Your task to perform on an android device: turn on showing notifications on the lock screen Image 0: 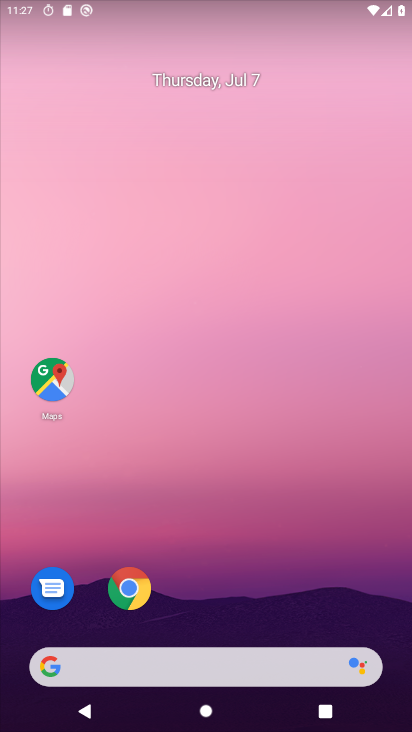
Step 0: drag from (183, 662) to (306, 162)
Your task to perform on an android device: turn on showing notifications on the lock screen Image 1: 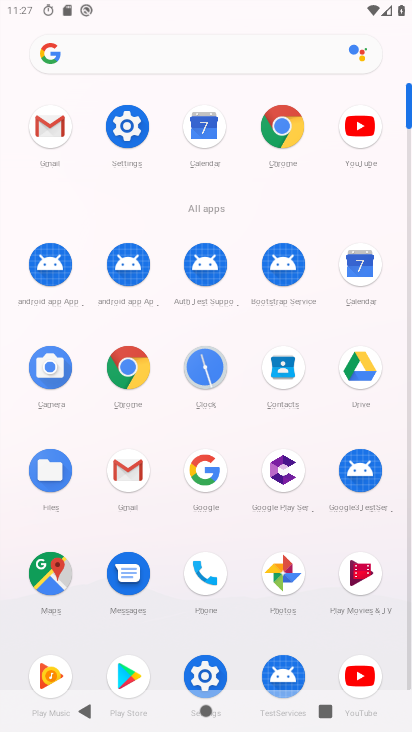
Step 1: click (127, 128)
Your task to perform on an android device: turn on showing notifications on the lock screen Image 2: 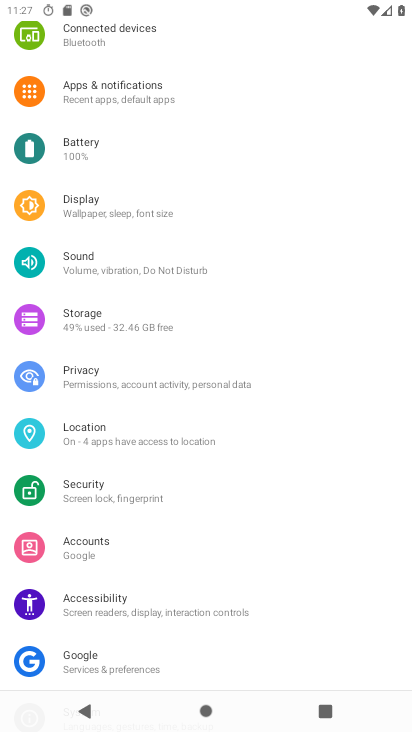
Step 2: click (135, 92)
Your task to perform on an android device: turn on showing notifications on the lock screen Image 3: 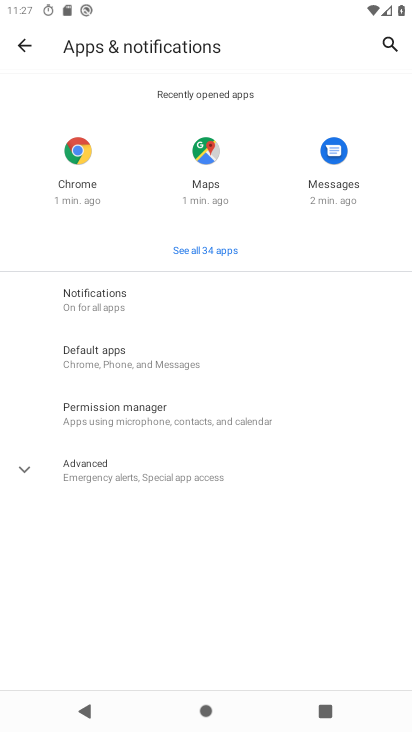
Step 3: click (106, 306)
Your task to perform on an android device: turn on showing notifications on the lock screen Image 4: 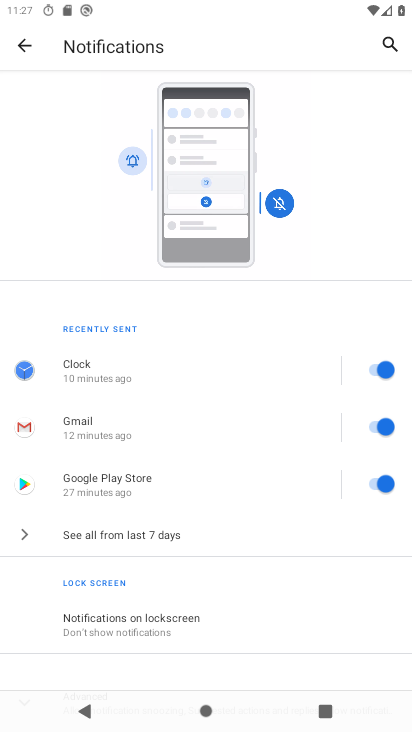
Step 4: click (141, 622)
Your task to perform on an android device: turn on showing notifications on the lock screen Image 5: 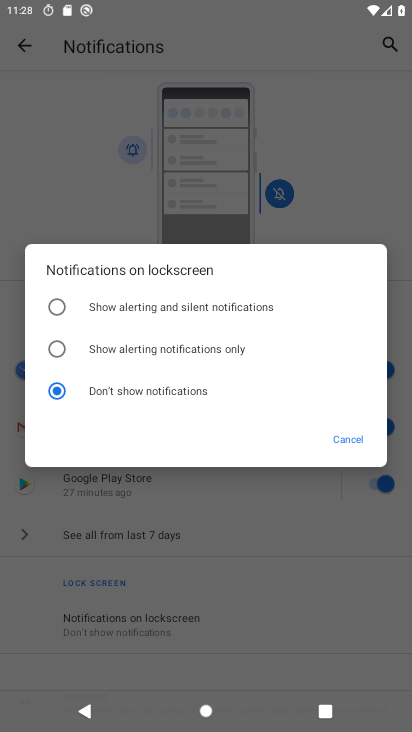
Step 5: click (56, 308)
Your task to perform on an android device: turn on showing notifications on the lock screen Image 6: 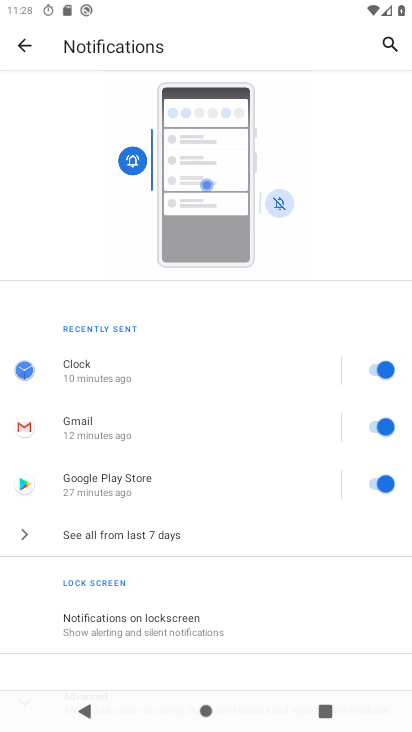
Step 6: task complete